Your task to perform on an android device: move a message to another label in the gmail app Image 0: 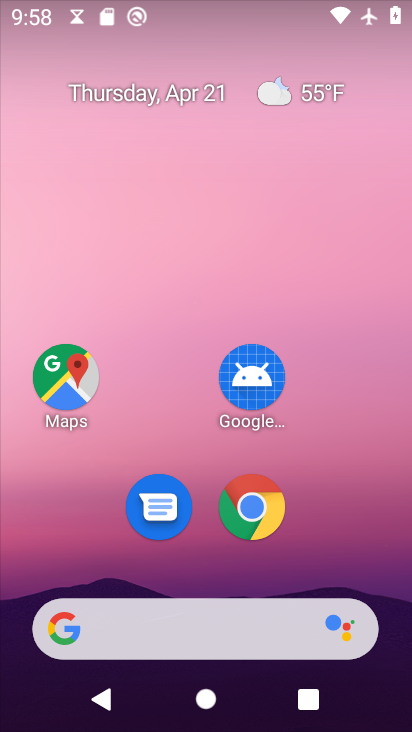
Step 0: drag from (316, 506) to (315, 177)
Your task to perform on an android device: move a message to another label in the gmail app Image 1: 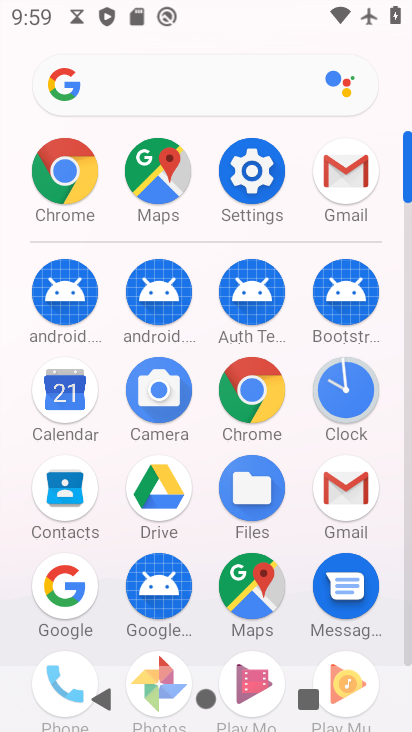
Step 1: click (341, 481)
Your task to perform on an android device: move a message to another label in the gmail app Image 2: 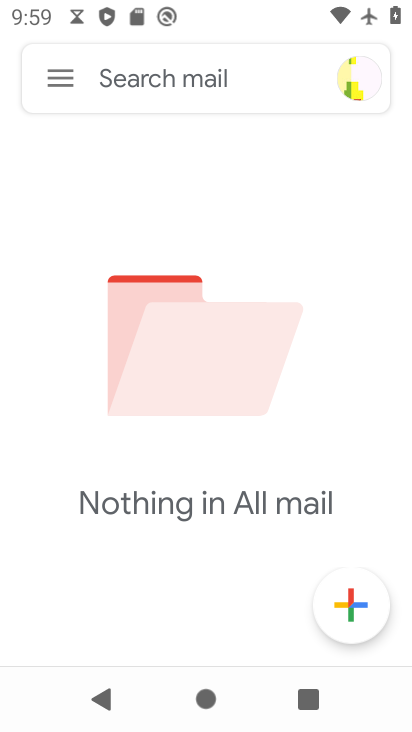
Step 2: click (42, 77)
Your task to perform on an android device: move a message to another label in the gmail app Image 3: 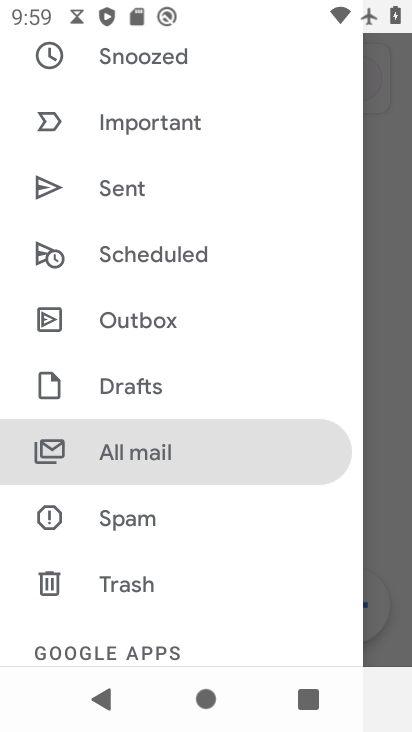
Step 3: task complete